Your task to perform on an android device: open app "VLC for Android" (install if not already installed) Image 0: 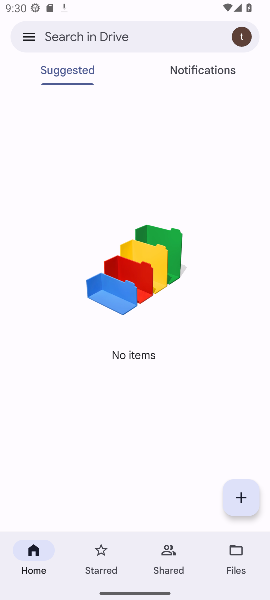
Step 0: press home button
Your task to perform on an android device: open app "VLC for Android" (install if not already installed) Image 1: 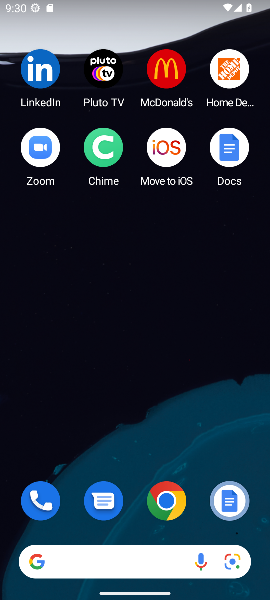
Step 1: drag from (134, 529) to (161, 161)
Your task to perform on an android device: open app "VLC for Android" (install if not already installed) Image 2: 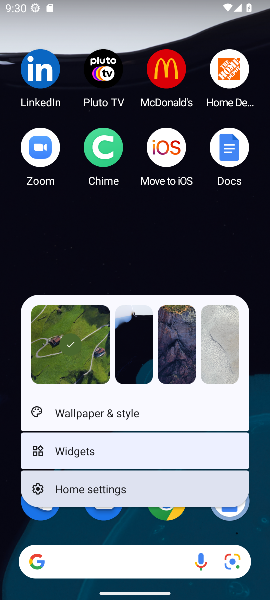
Step 2: click (161, 161)
Your task to perform on an android device: open app "VLC for Android" (install if not already installed) Image 3: 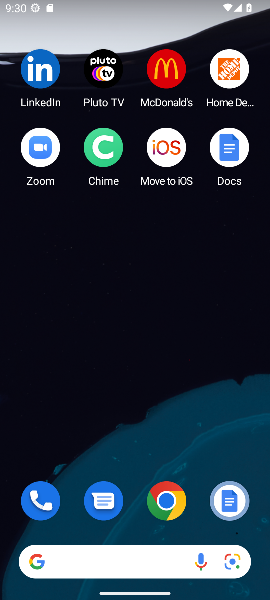
Step 3: click (149, 225)
Your task to perform on an android device: open app "VLC for Android" (install if not already installed) Image 4: 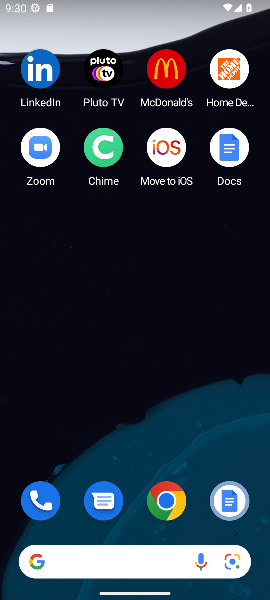
Step 4: drag from (146, 530) to (162, 176)
Your task to perform on an android device: open app "VLC for Android" (install if not already installed) Image 5: 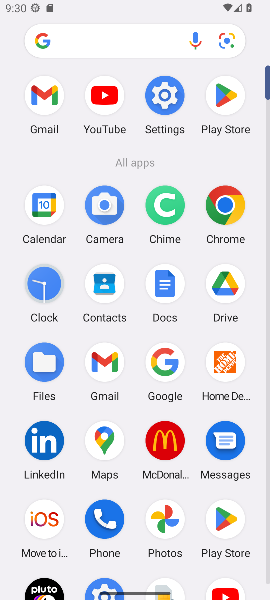
Step 5: click (216, 122)
Your task to perform on an android device: open app "VLC for Android" (install if not already installed) Image 6: 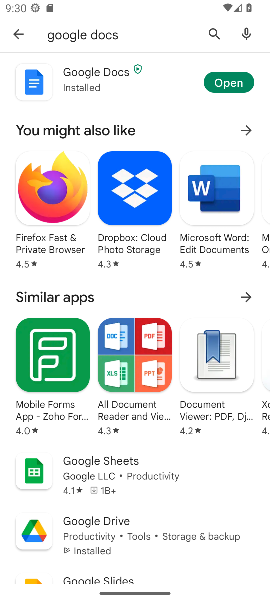
Step 6: click (207, 40)
Your task to perform on an android device: open app "VLC for Android" (install if not already installed) Image 7: 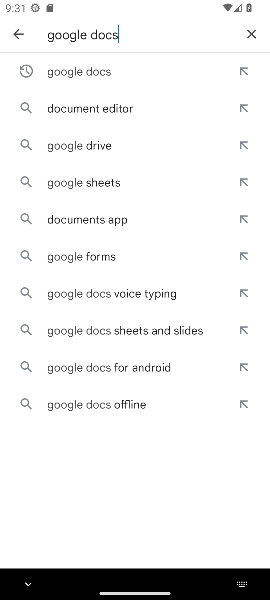
Step 7: click (247, 40)
Your task to perform on an android device: open app "VLC for Android" (install if not already installed) Image 8: 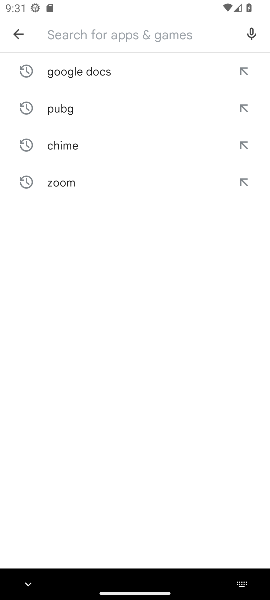
Step 8: type "vlc"
Your task to perform on an android device: open app "VLC for Android" (install if not already installed) Image 9: 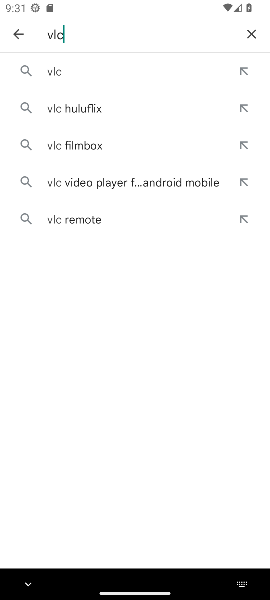
Step 9: click (107, 74)
Your task to perform on an android device: open app "VLC for Android" (install if not already installed) Image 10: 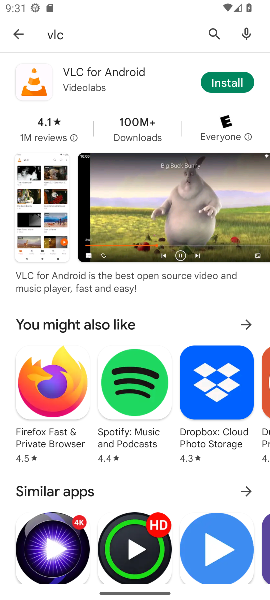
Step 10: click (226, 80)
Your task to perform on an android device: open app "VLC for Android" (install if not already installed) Image 11: 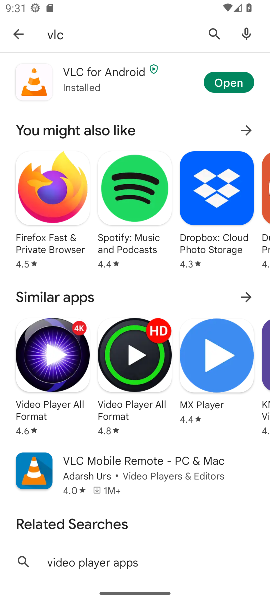
Step 11: click (225, 82)
Your task to perform on an android device: open app "VLC for Android" (install if not already installed) Image 12: 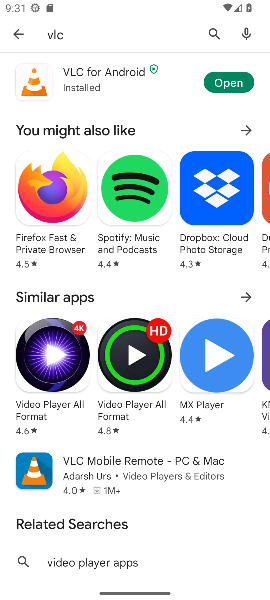
Step 12: task complete